Your task to perform on an android device: check data usage Image 0: 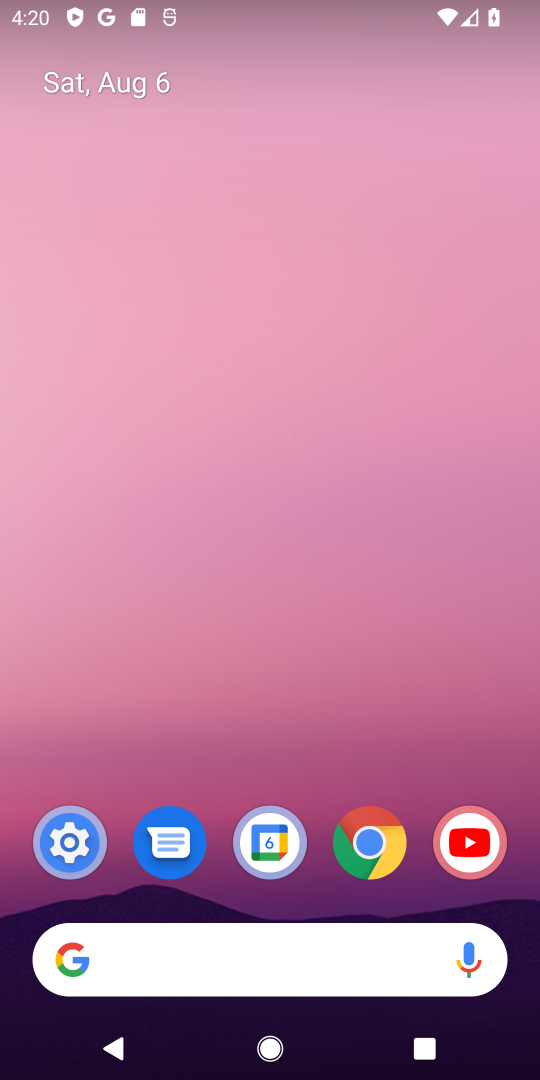
Step 0: click (66, 829)
Your task to perform on an android device: check data usage Image 1: 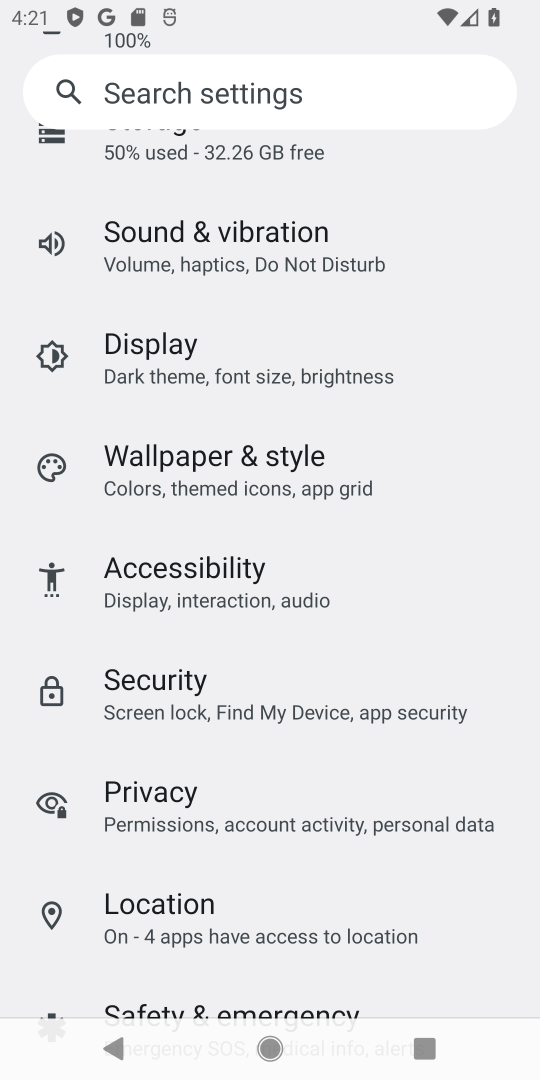
Step 1: drag from (252, 320) to (240, 949)
Your task to perform on an android device: check data usage Image 2: 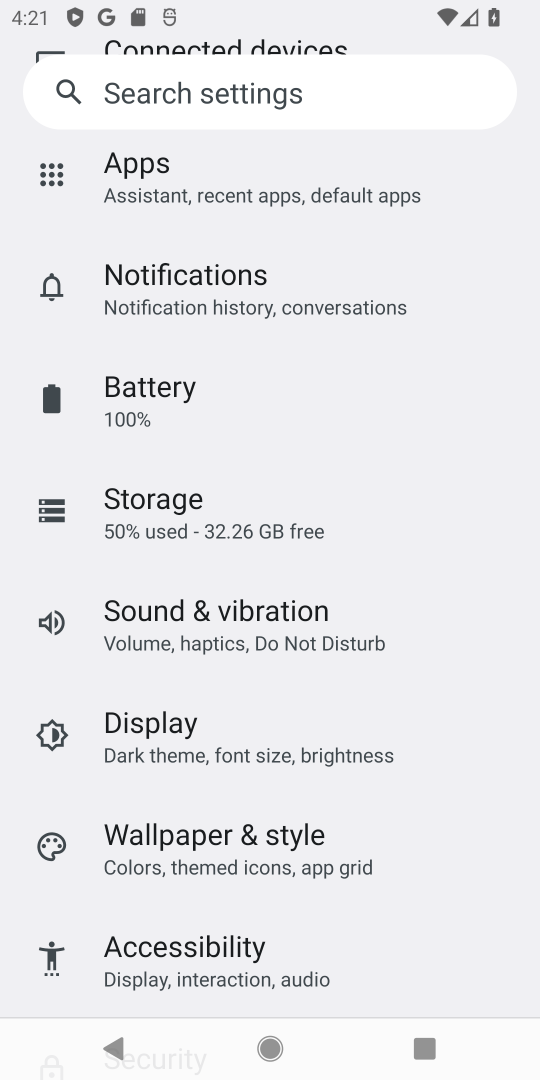
Step 2: drag from (446, 185) to (445, 901)
Your task to perform on an android device: check data usage Image 3: 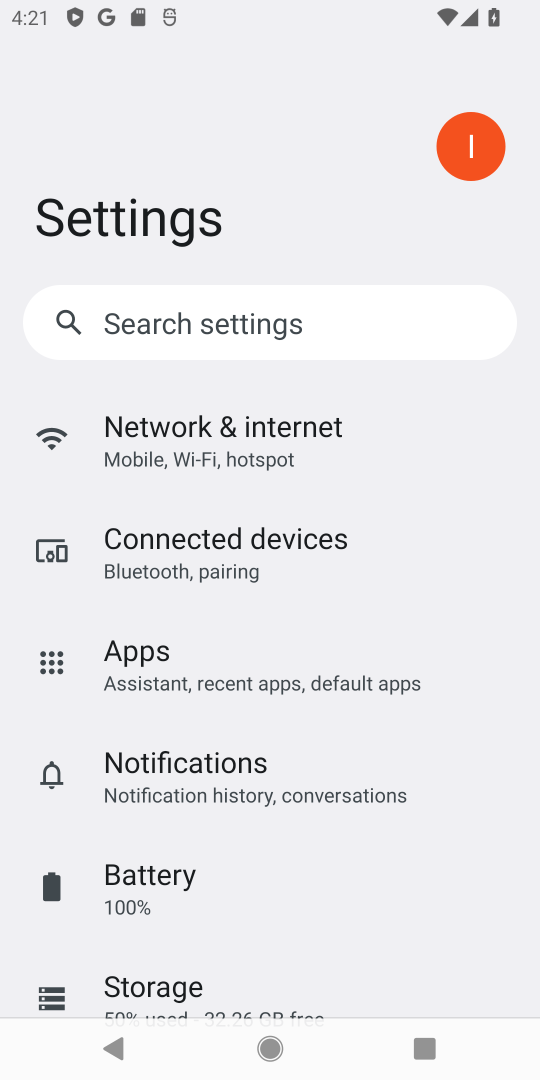
Step 3: click (220, 441)
Your task to perform on an android device: check data usage Image 4: 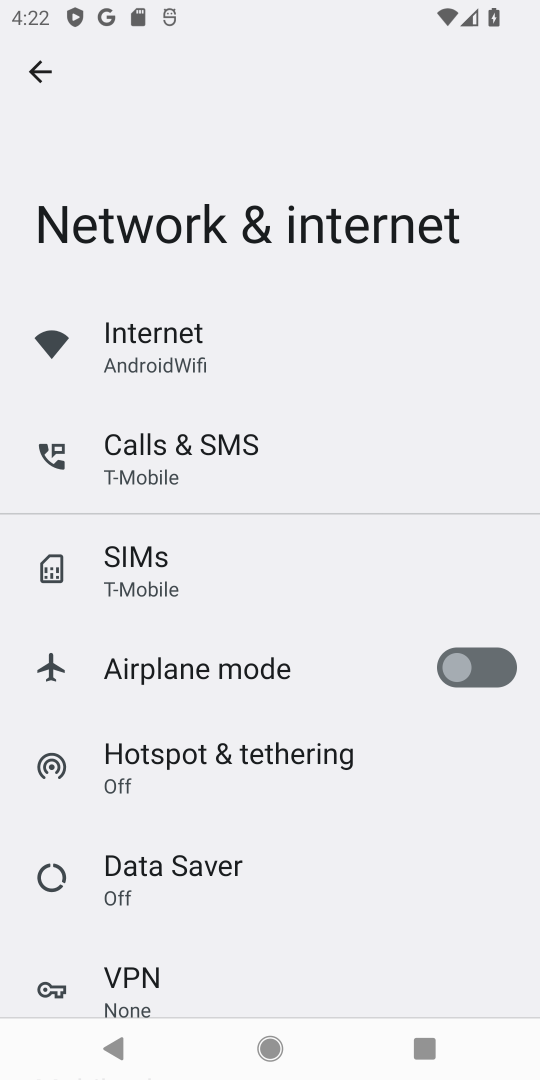
Step 4: drag from (361, 974) to (343, 360)
Your task to perform on an android device: check data usage Image 5: 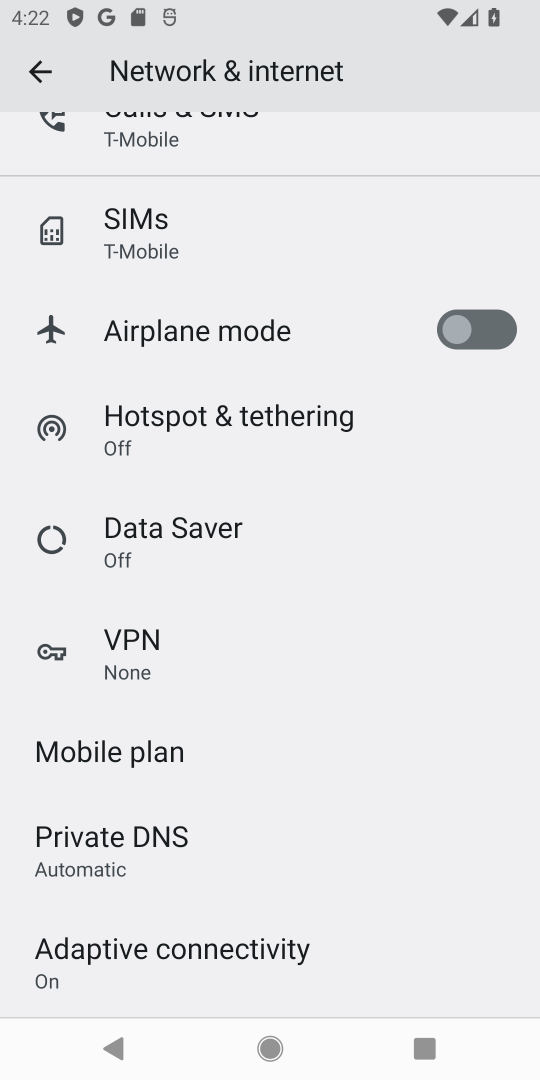
Step 5: drag from (348, 299) to (314, 846)
Your task to perform on an android device: check data usage Image 6: 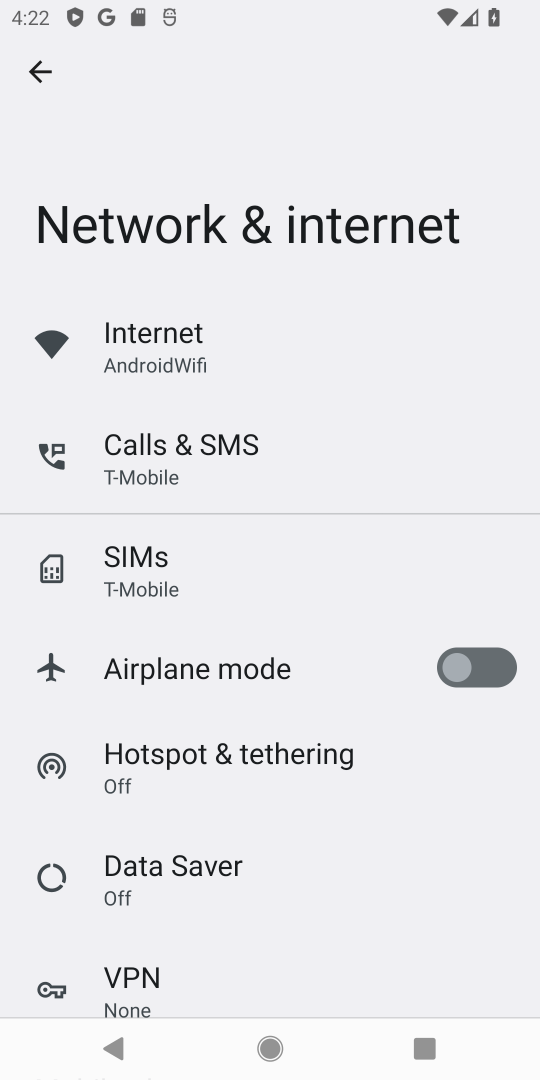
Step 6: click (125, 349)
Your task to perform on an android device: check data usage Image 7: 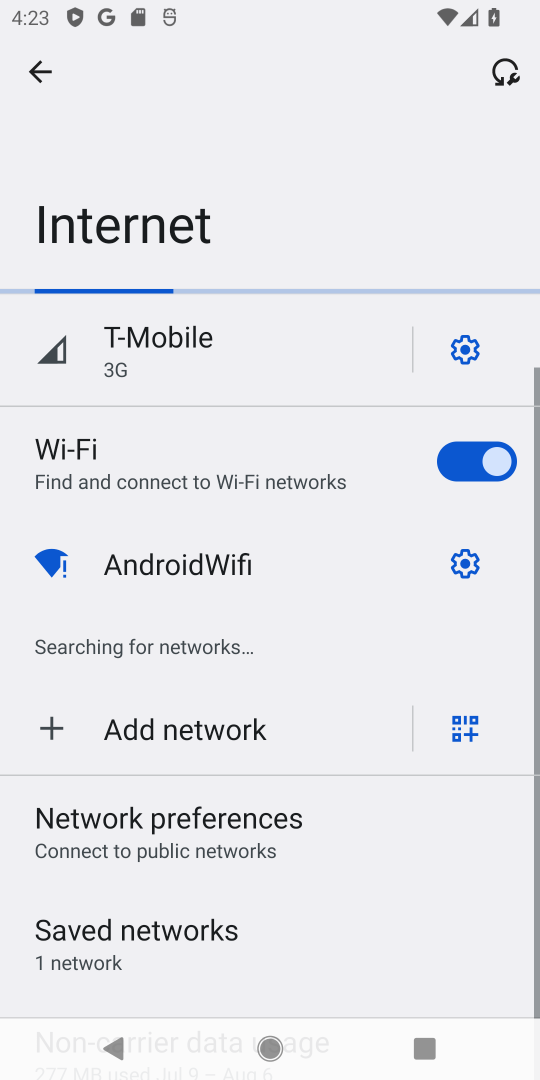
Step 7: click (235, 357)
Your task to perform on an android device: check data usage Image 8: 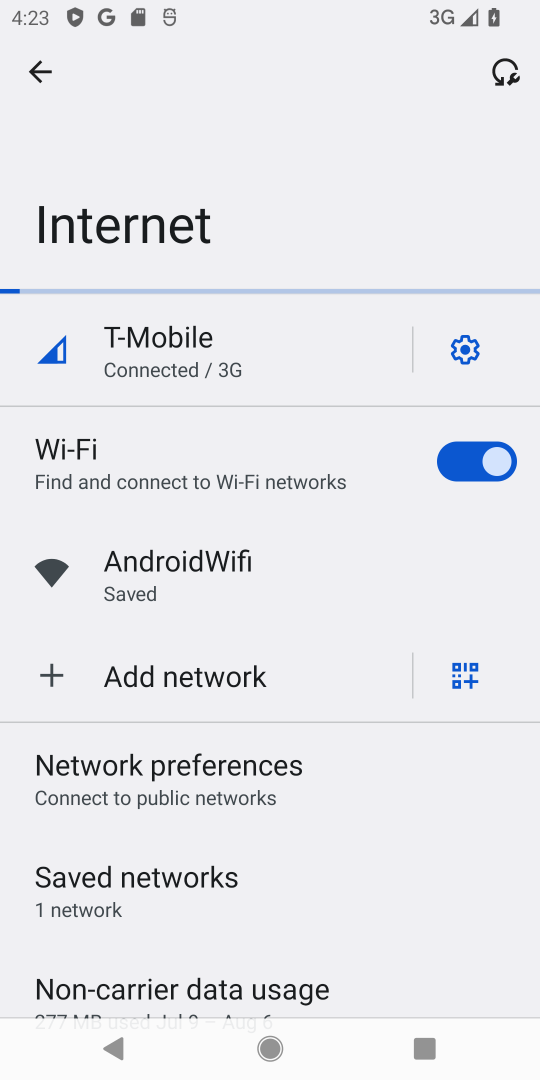
Step 8: click (41, 73)
Your task to perform on an android device: check data usage Image 9: 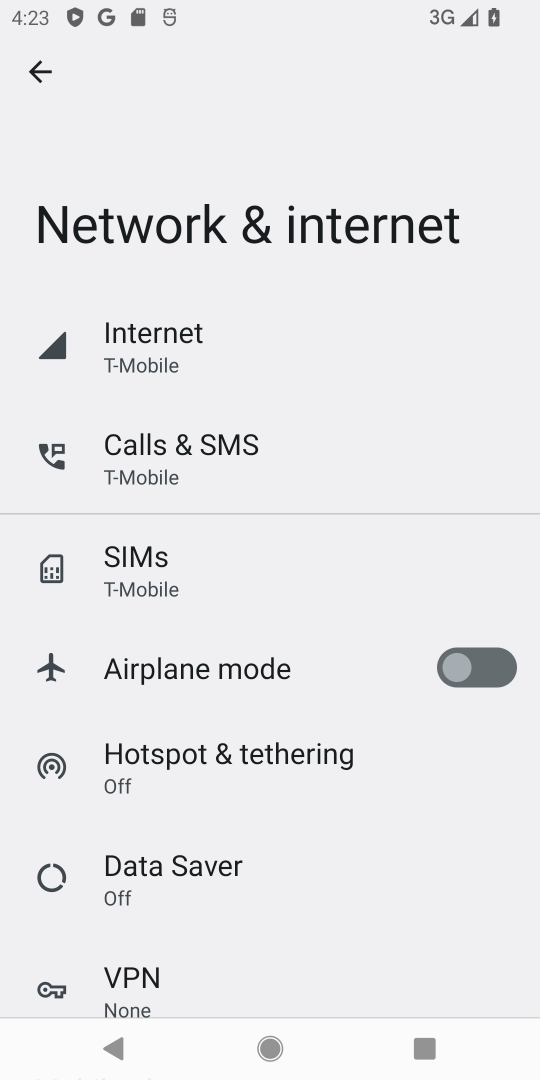
Step 9: task complete